Your task to perform on an android device: Open CNN.com Image 0: 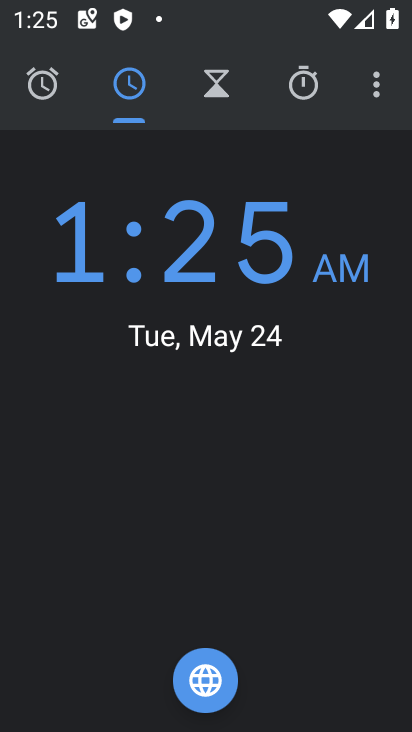
Step 0: press home button
Your task to perform on an android device: Open CNN.com Image 1: 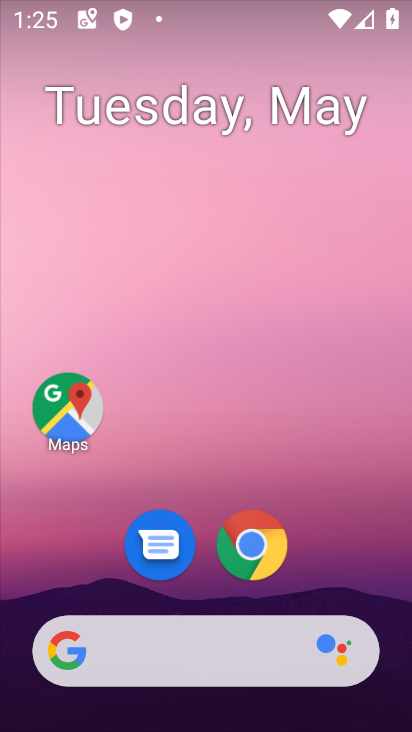
Step 1: click (253, 545)
Your task to perform on an android device: Open CNN.com Image 2: 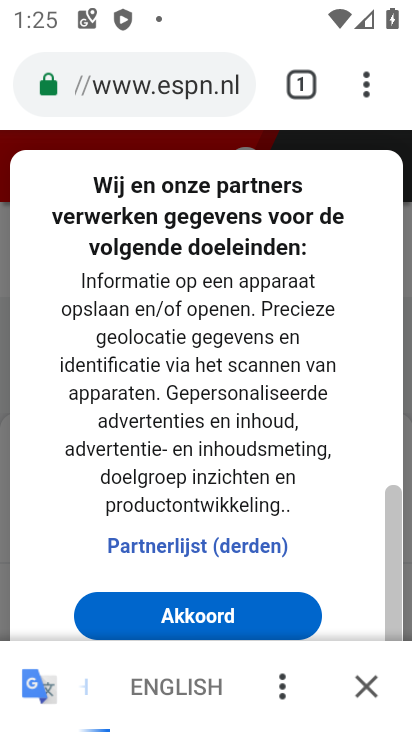
Step 2: click (157, 82)
Your task to perform on an android device: Open CNN.com Image 3: 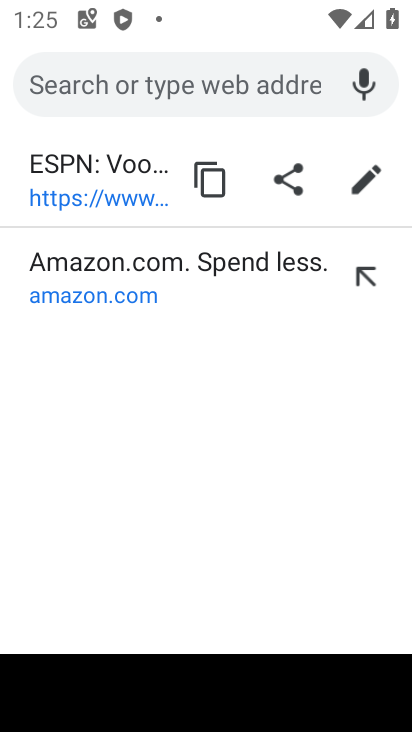
Step 3: type "cnn.com"
Your task to perform on an android device: Open CNN.com Image 4: 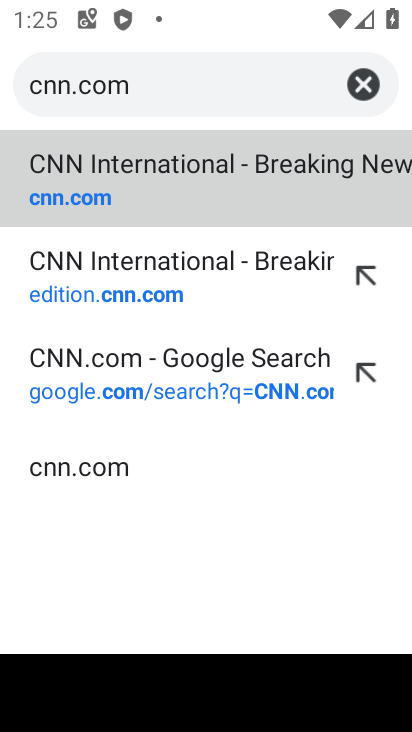
Step 4: click (123, 162)
Your task to perform on an android device: Open CNN.com Image 5: 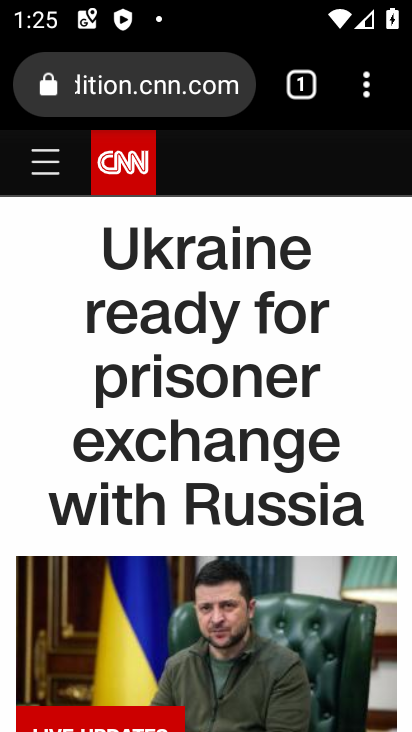
Step 5: task complete